Your task to perform on an android device: change the clock display to analog Image 0: 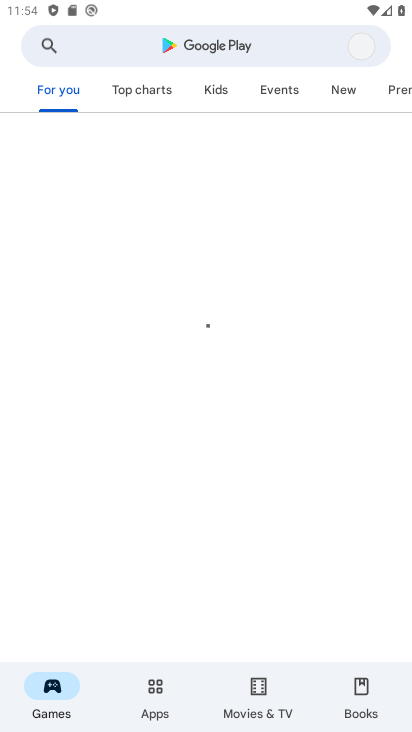
Step 0: press home button
Your task to perform on an android device: change the clock display to analog Image 1: 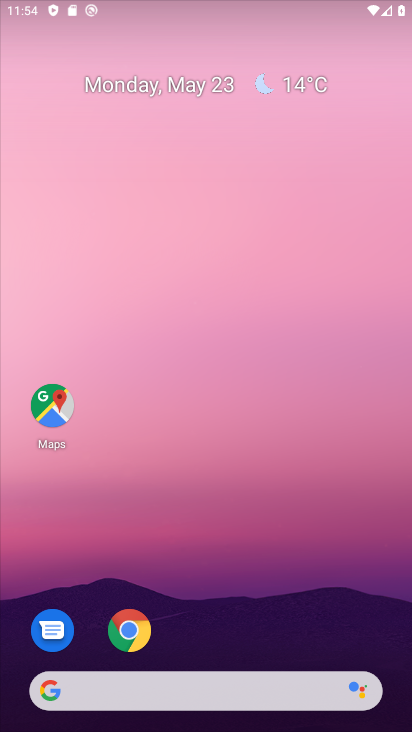
Step 1: drag from (249, 619) to (279, 159)
Your task to perform on an android device: change the clock display to analog Image 2: 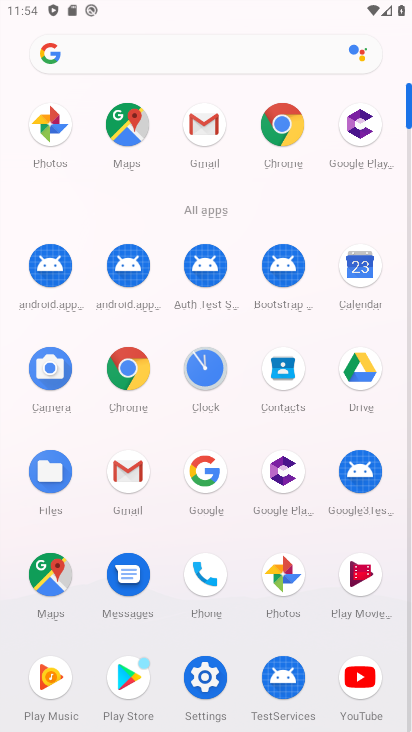
Step 2: click (201, 382)
Your task to perform on an android device: change the clock display to analog Image 3: 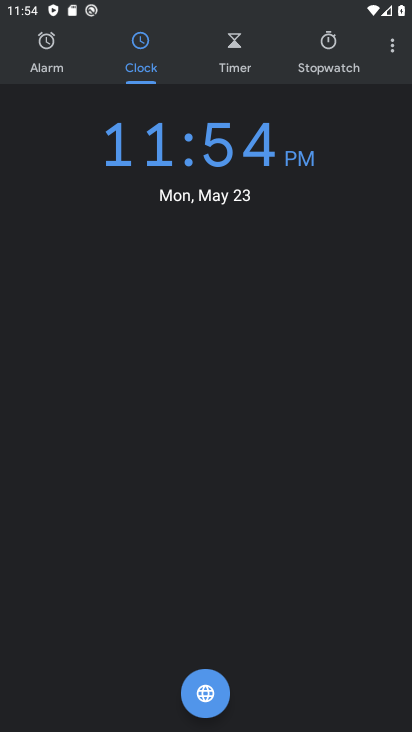
Step 3: drag from (395, 55) to (283, 83)
Your task to perform on an android device: change the clock display to analog Image 4: 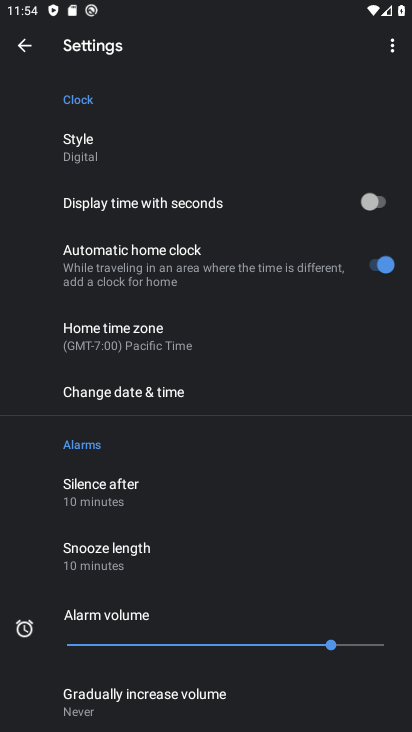
Step 4: click (71, 145)
Your task to perform on an android device: change the clock display to analog Image 5: 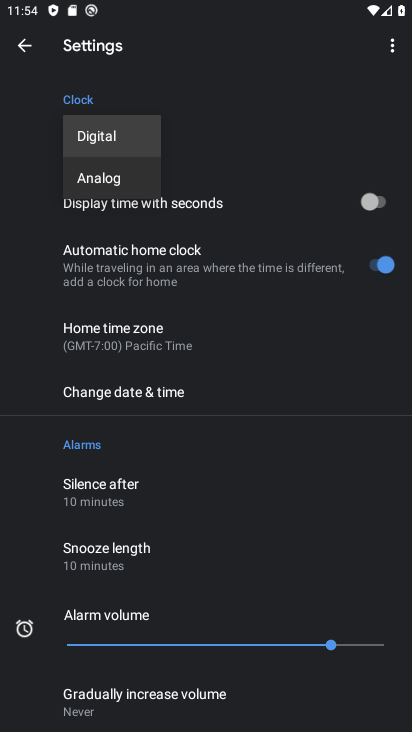
Step 5: click (81, 185)
Your task to perform on an android device: change the clock display to analog Image 6: 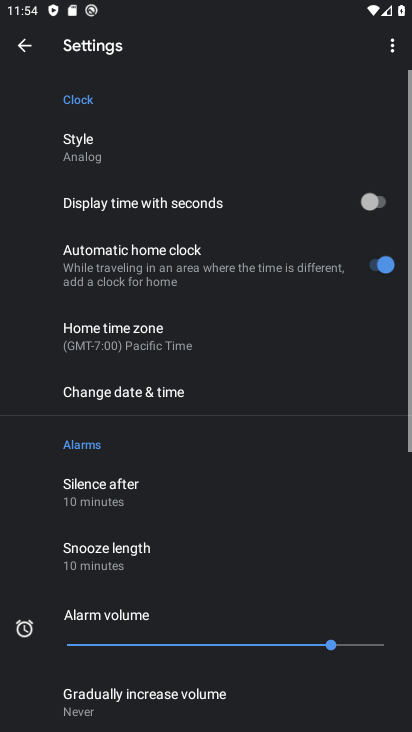
Step 6: task complete